Your task to perform on an android device: Go to Wikipedia Image 0: 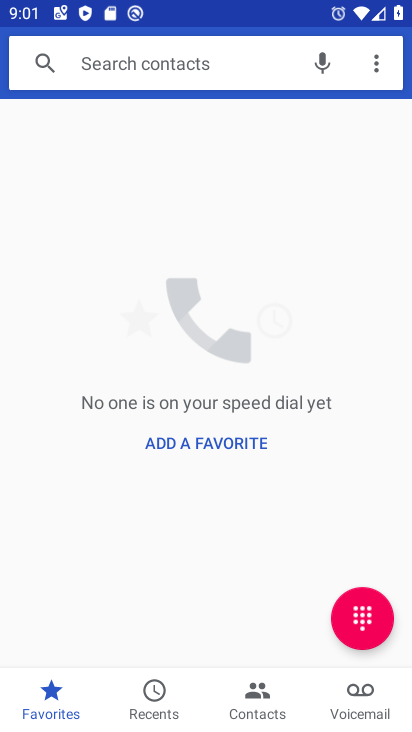
Step 0: press home button
Your task to perform on an android device: Go to Wikipedia Image 1: 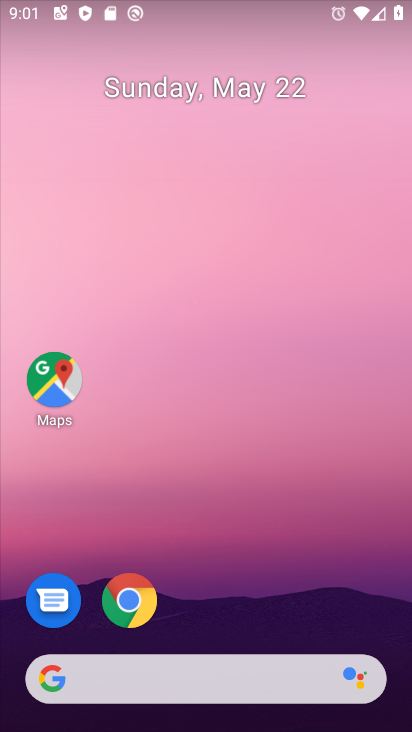
Step 1: drag from (217, 709) to (351, 140)
Your task to perform on an android device: Go to Wikipedia Image 2: 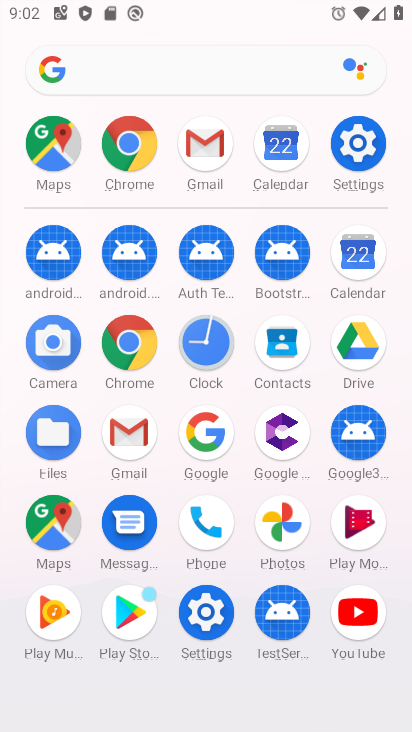
Step 2: click (127, 165)
Your task to perform on an android device: Go to Wikipedia Image 3: 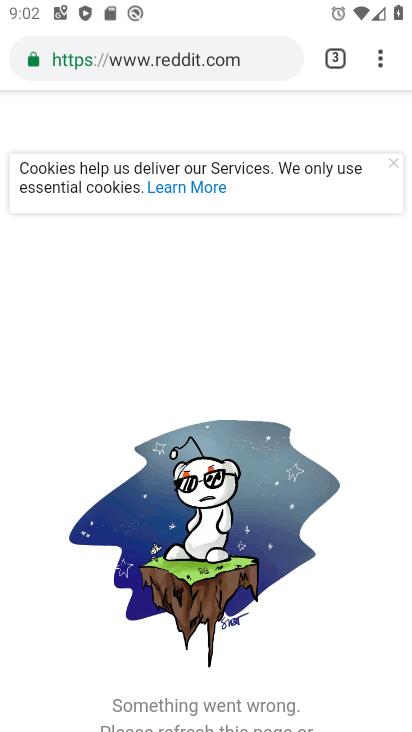
Step 3: click (224, 65)
Your task to perform on an android device: Go to Wikipedia Image 4: 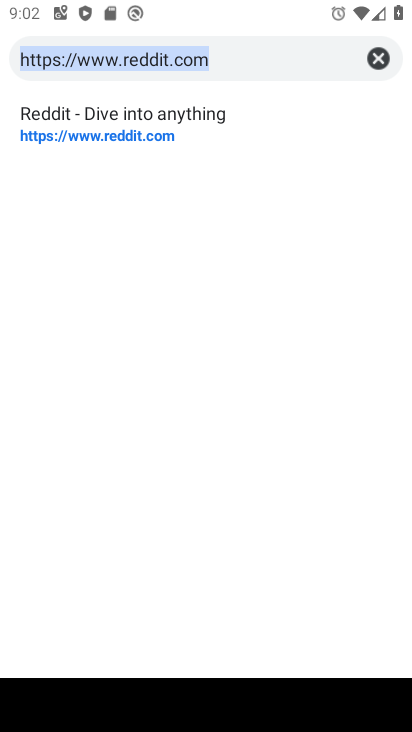
Step 4: type "wikipedia"
Your task to perform on an android device: Go to Wikipedia Image 5: 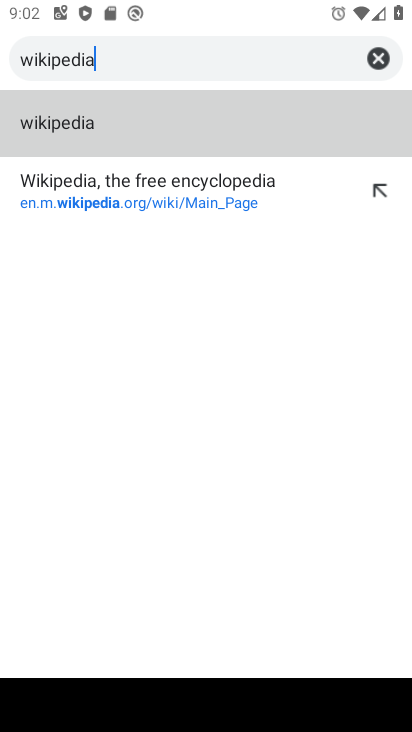
Step 5: click (227, 208)
Your task to perform on an android device: Go to Wikipedia Image 6: 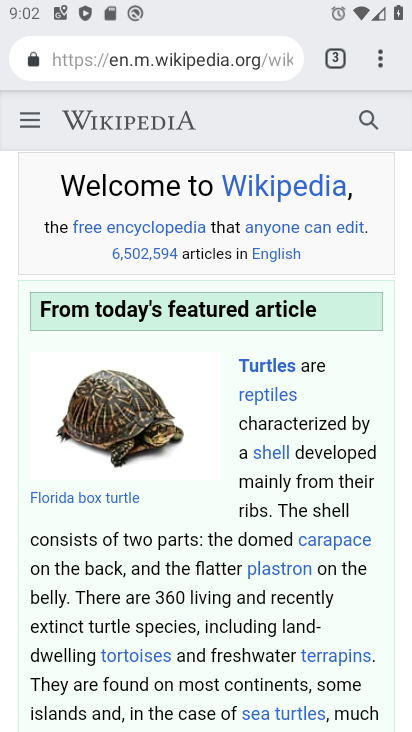
Step 6: task complete